Your task to perform on an android device: manage bookmarks in the chrome app Image 0: 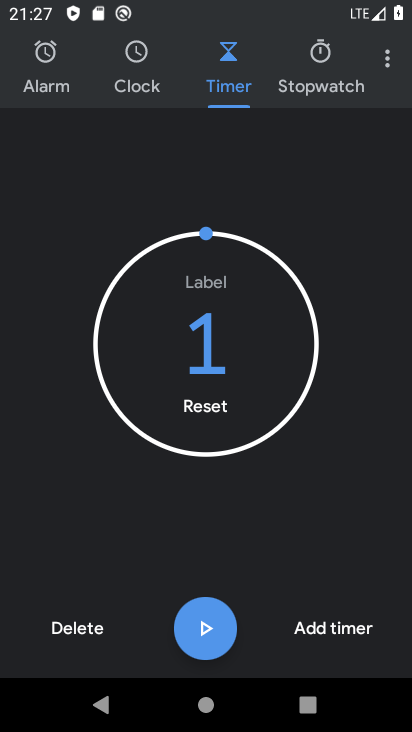
Step 0: press home button
Your task to perform on an android device: manage bookmarks in the chrome app Image 1: 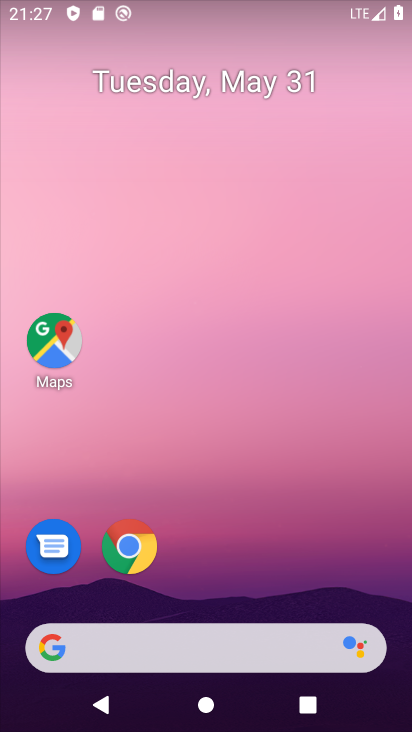
Step 1: click (128, 547)
Your task to perform on an android device: manage bookmarks in the chrome app Image 2: 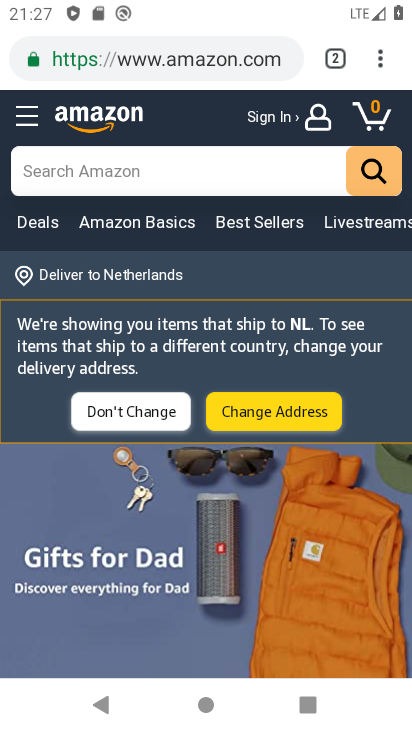
Step 2: click (381, 53)
Your task to perform on an android device: manage bookmarks in the chrome app Image 3: 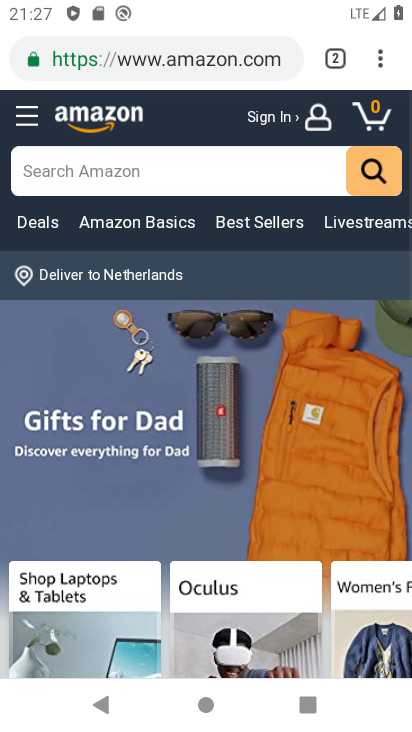
Step 3: click (381, 53)
Your task to perform on an android device: manage bookmarks in the chrome app Image 4: 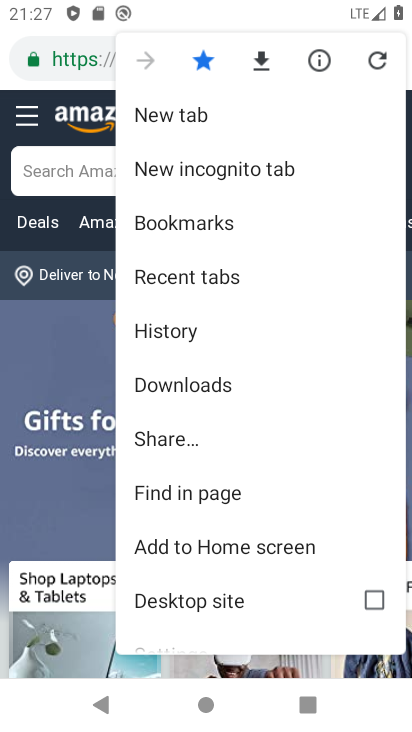
Step 4: click (180, 218)
Your task to perform on an android device: manage bookmarks in the chrome app Image 5: 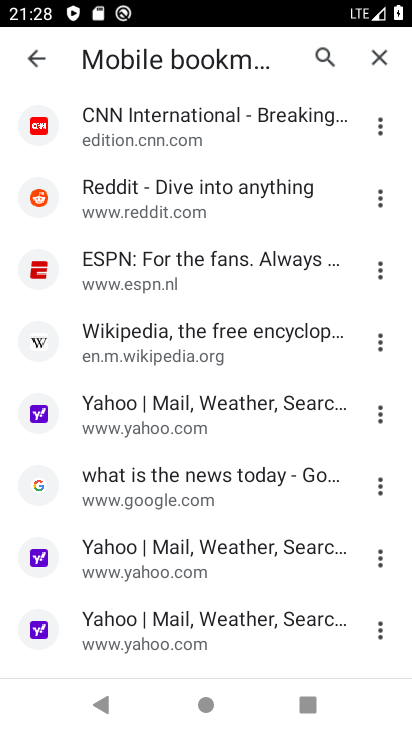
Step 5: click (380, 341)
Your task to perform on an android device: manage bookmarks in the chrome app Image 6: 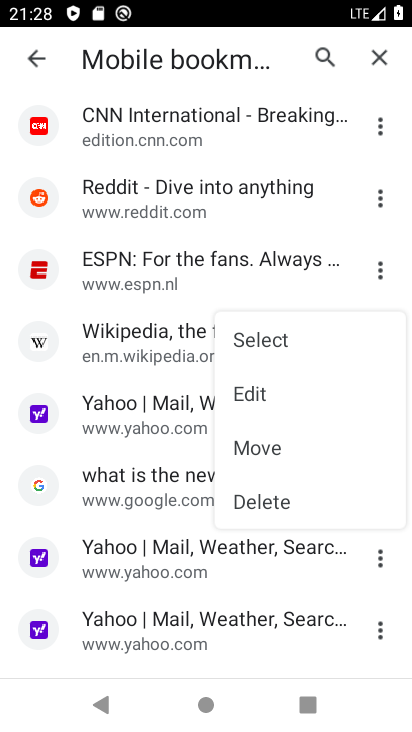
Step 6: click (247, 498)
Your task to perform on an android device: manage bookmarks in the chrome app Image 7: 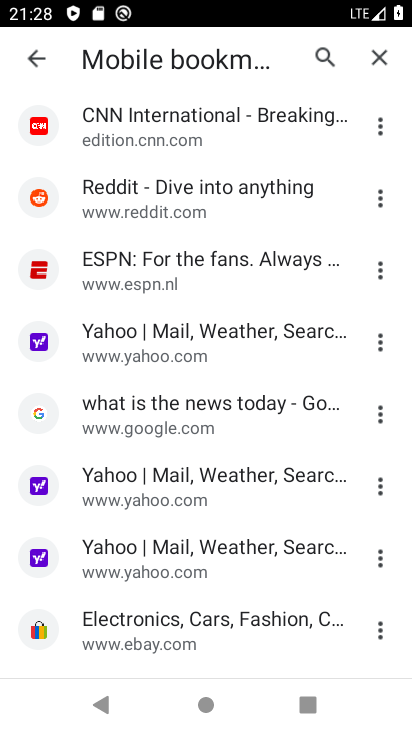
Step 7: task complete